Your task to perform on an android device: turn on notifications settings in the gmail app Image 0: 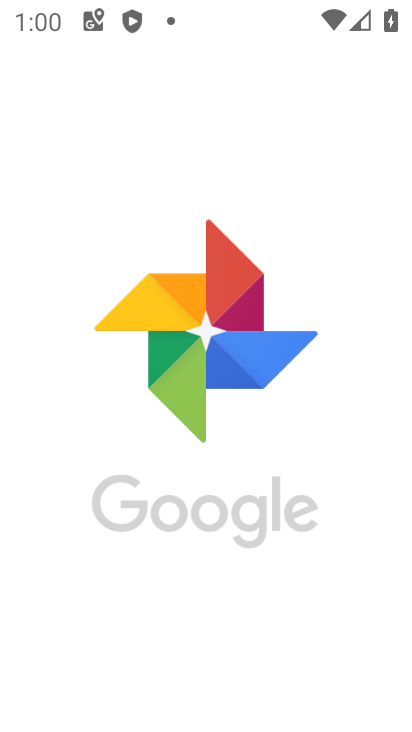
Step 0: drag from (265, 568) to (286, 534)
Your task to perform on an android device: turn on notifications settings in the gmail app Image 1: 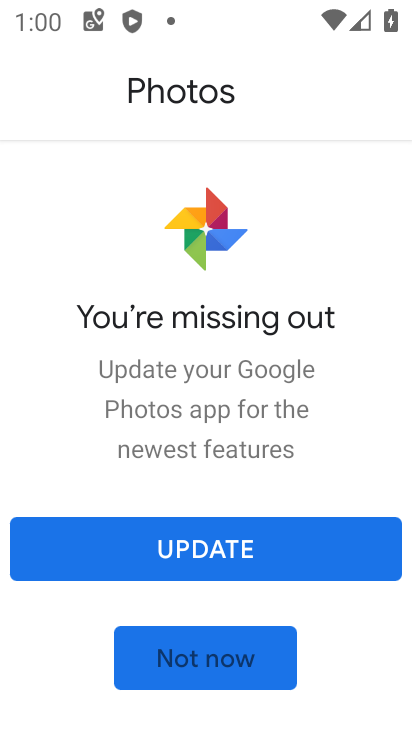
Step 1: press home button
Your task to perform on an android device: turn on notifications settings in the gmail app Image 2: 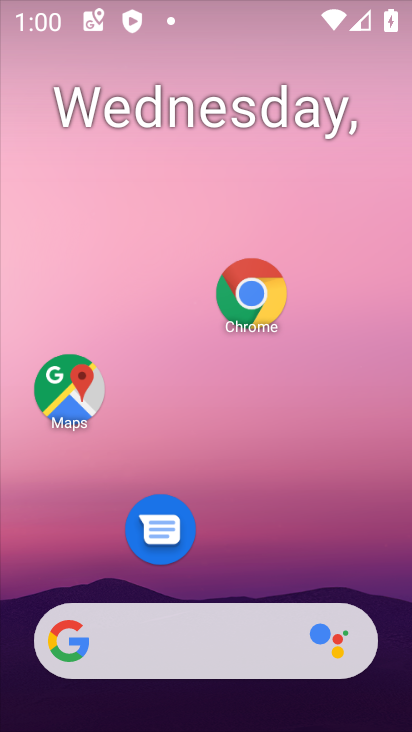
Step 2: drag from (247, 481) to (256, 225)
Your task to perform on an android device: turn on notifications settings in the gmail app Image 3: 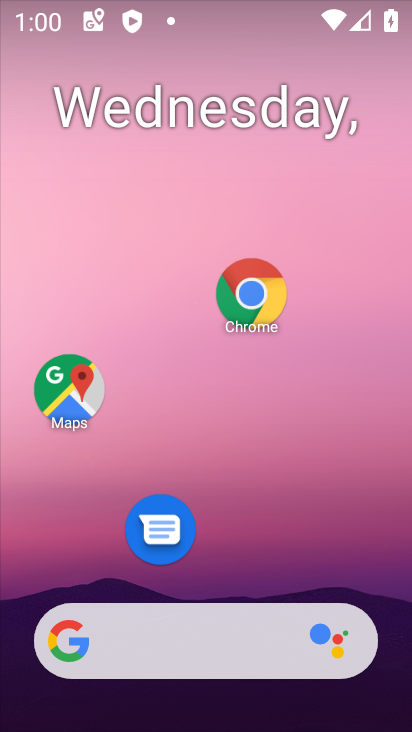
Step 3: drag from (255, 527) to (251, 265)
Your task to perform on an android device: turn on notifications settings in the gmail app Image 4: 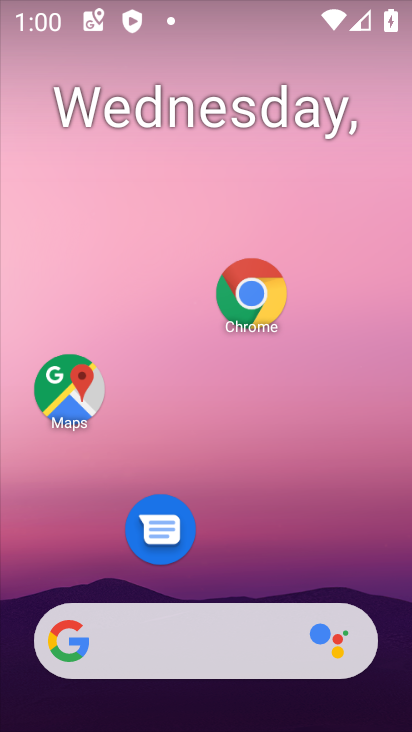
Step 4: drag from (289, 619) to (319, 233)
Your task to perform on an android device: turn on notifications settings in the gmail app Image 5: 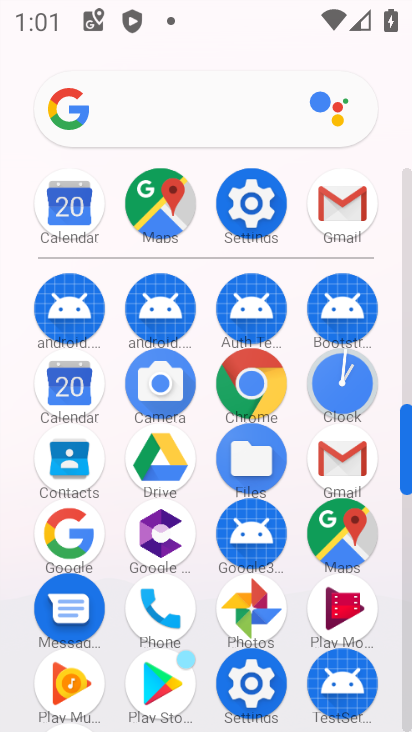
Step 5: click (333, 463)
Your task to perform on an android device: turn on notifications settings in the gmail app Image 6: 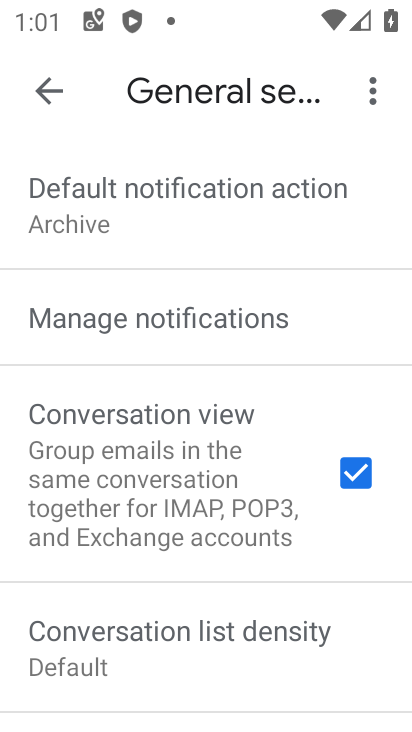
Step 6: click (193, 340)
Your task to perform on an android device: turn on notifications settings in the gmail app Image 7: 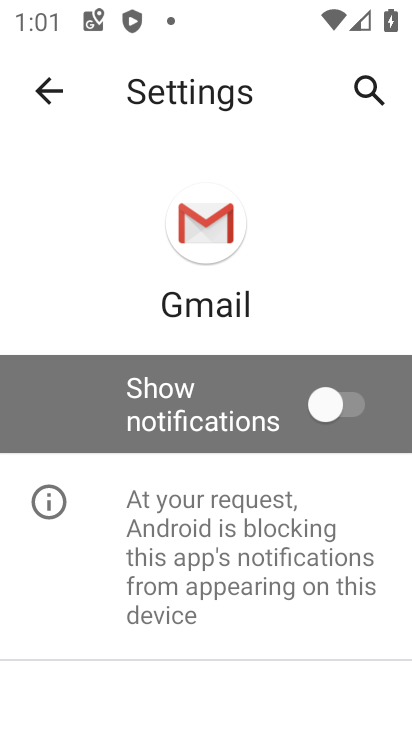
Step 7: click (179, 424)
Your task to perform on an android device: turn on notifications settings in the gmail app Image 8: 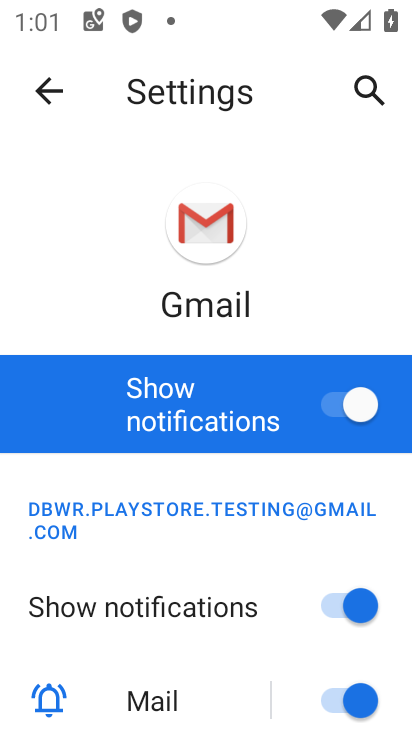
Step 8: task complete